Your task to perform on an android device: set the stopwatch Image 0: 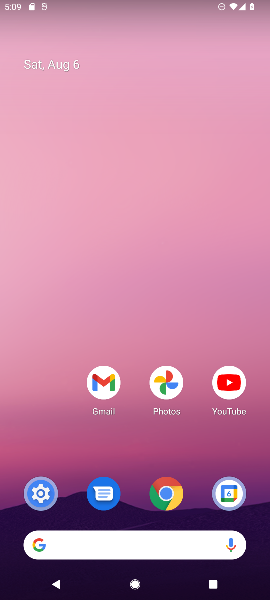
Step 0: drag from (135, 429) to (110, 157)
Your task to perform on an android device: set the stopwatch Image 1: 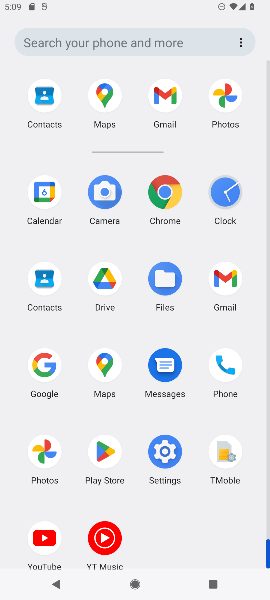
Step 1: click (226, 200)
Your task to perform on an android device: set the stopwatch Image 2: 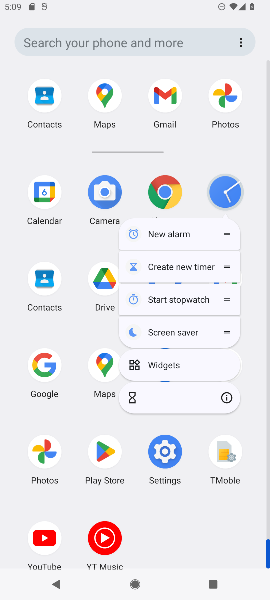
Step 2: click (227, 204)
Your task to perform on an android device: set the stopwatch Image 3: 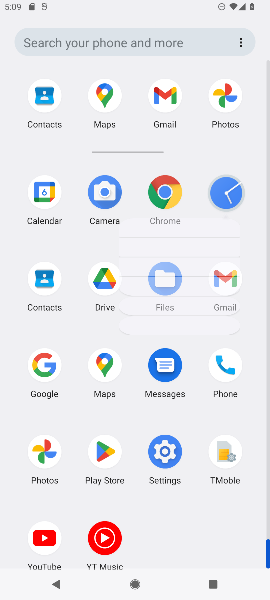
Step 3: click (227, 204)
Your task to perform on an android device: set the stopwatch Image 4: 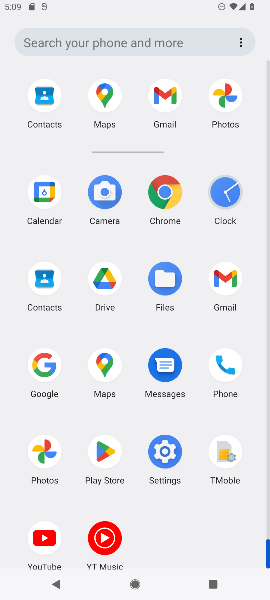
Step 4: click (227, 204)
Your task to perform on an android device: set the stopwatch Image 5: 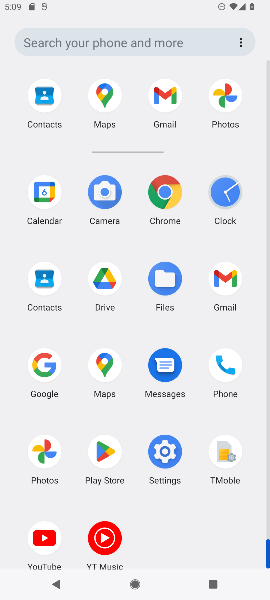
Step 5: click (226, 201)
Your task to perform on an android device: set the stopwatch Image 6: 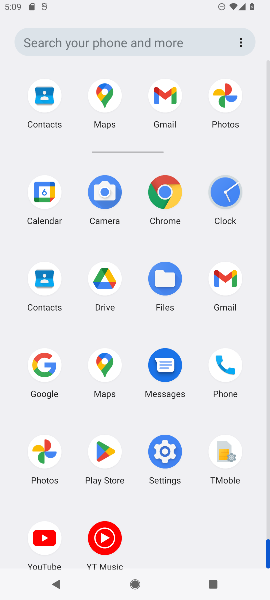
Step 6: click (226, 198)
Your task to perform on an android device: set the stopwatch Image 7: 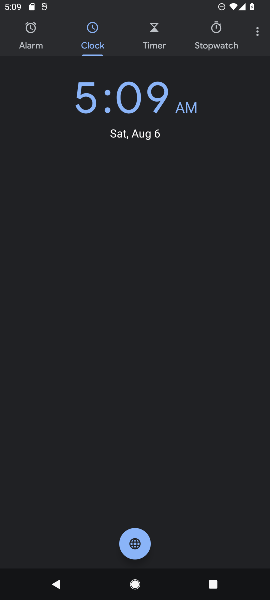
Step 7: click (226, 197)
Your task to perform on an android device: set the stopwatch Image 8: 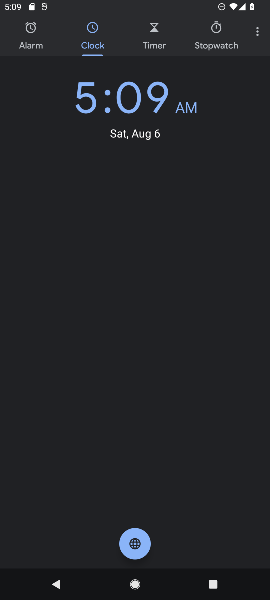
Step 8: click (226, 197)
Your task to perform on an android device: set the stopwatch Image 9: 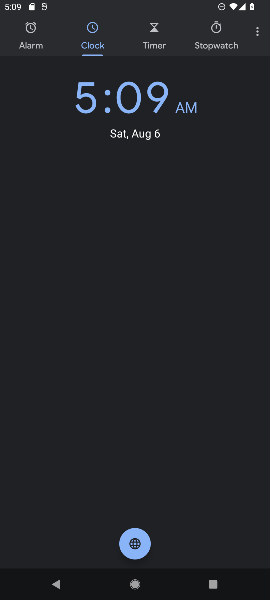
Step 9: click (219, 38)
Your task to perform on an android device: set the stopwatch Image 10: 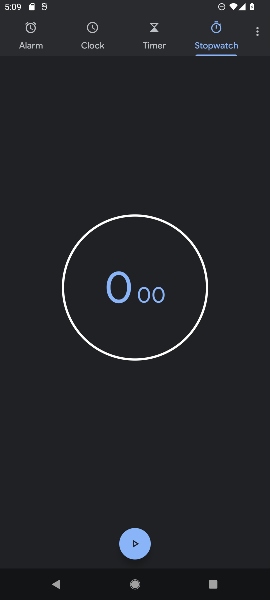
Step 10: click (133, 542)
Your task to perform on an android device: set the stopwatch Image 11: 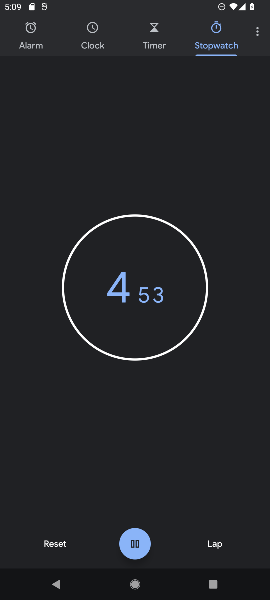
Step 11: click (133, 549)
Your task to perform on an android device: set the stopwatch Image 12: 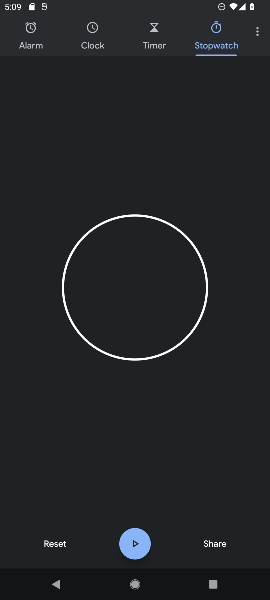
Step 12: task complete